Your task to perform on an android device: turn on the 12-hour format for clock Image 0: 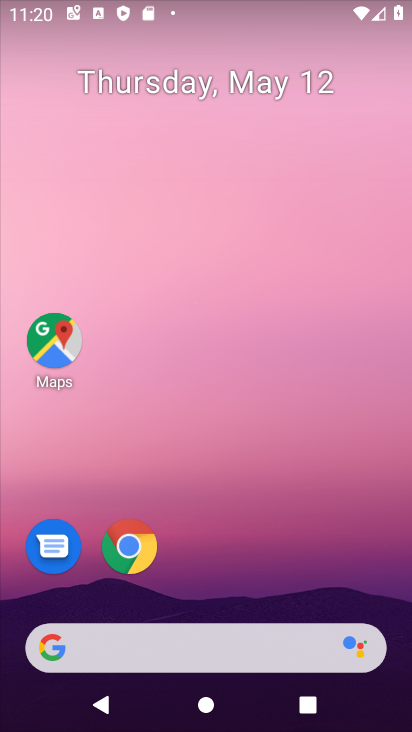
Step 0: drag from (288, 655) to (258, 166)
Your task to perform on an android device: turn on the 12-hour format for clock Image 1: 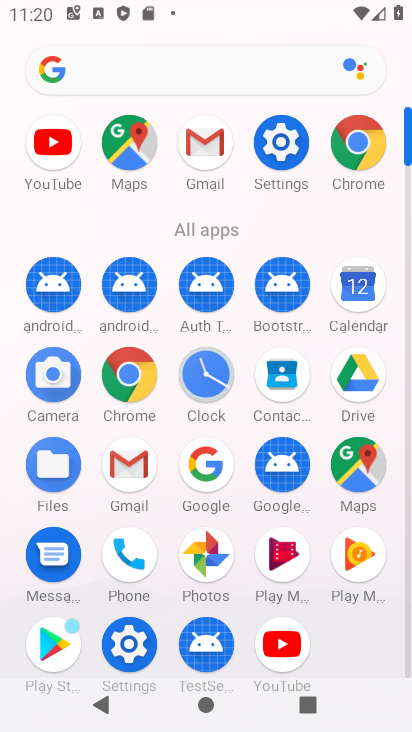
Step 1: click (199, 376)
Your task to perform on an android device: turn on the 12-hour format for clock Image 2: 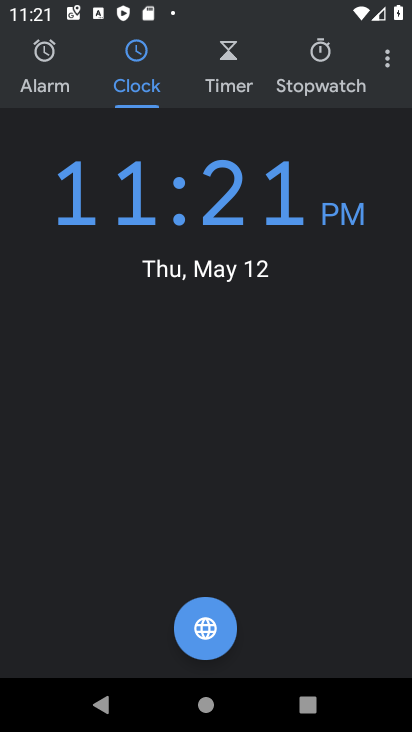
Step 2: click (377, 49)
Your task to perform on an android device: turn on the 12-hour format for clock Image 3: 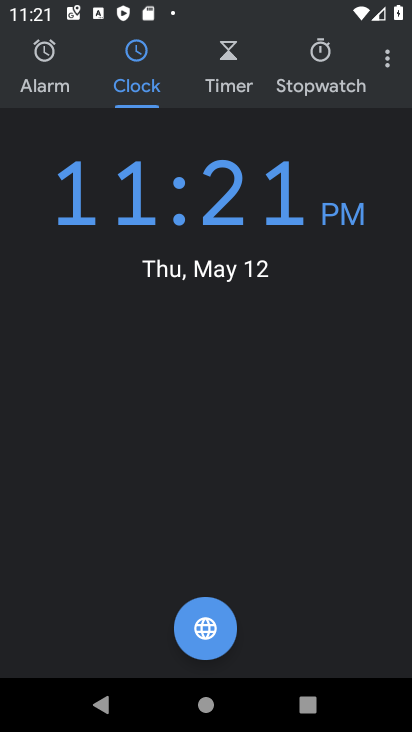
Step 3: click (377, 70)
Your task to perform on an android device: turn on the 12-hour format for clock Image 4: 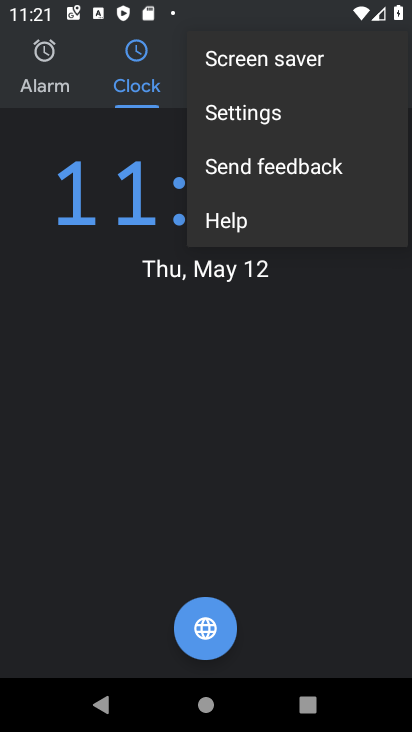
Step 4: click (245, 114)
Your task to perform on an android device: turn on the 12-hour format for clock Image 5: 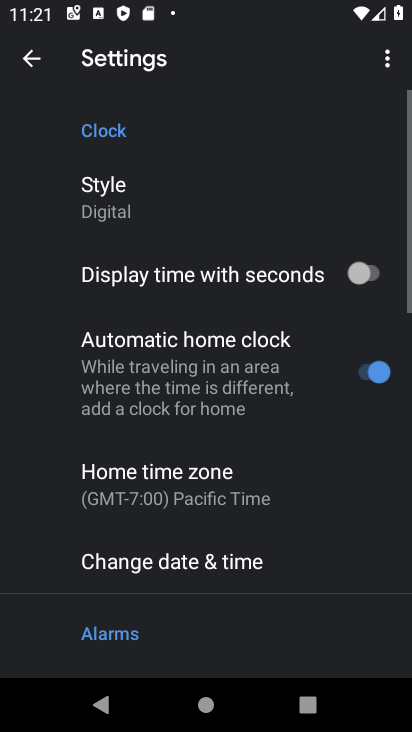
Step 5: click (246, 558)
Your task to perform on an android device: turn on the 12-hour format for clock Image 6: 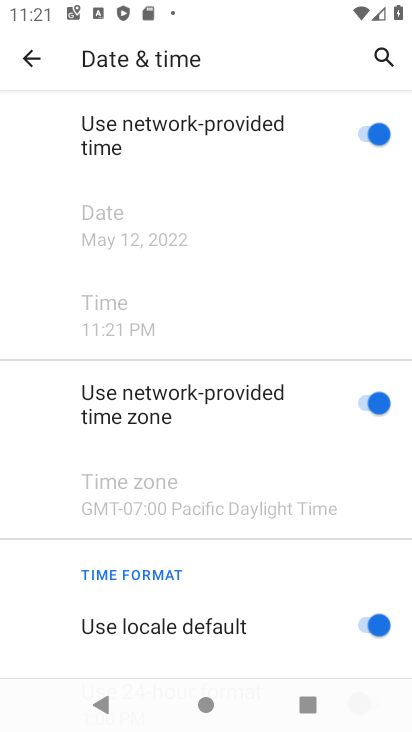
Step 6: drag from (327, 567) to (266, 370)
Your task to perform on an android device: turn on the 12-hour format for clock Image 7: 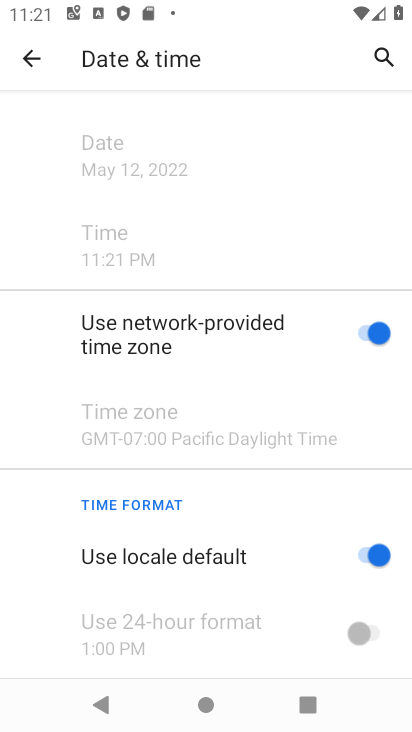
Step 7: click (374, 560)
Your task to perform on an android device: turn on the 12-hour format for clock Image 8: 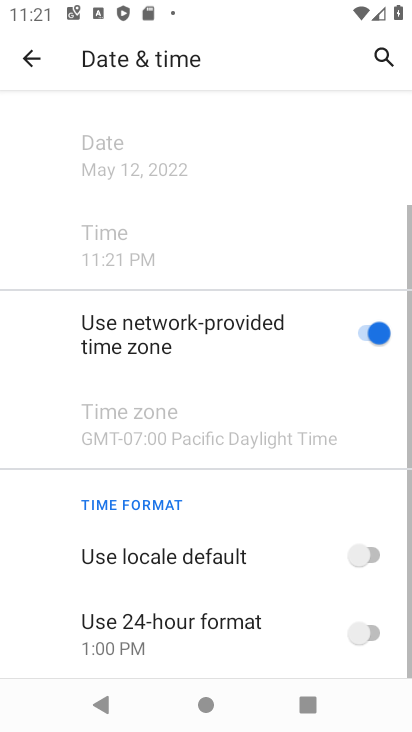
Step 8: click (376, 630)
Your task to perform on an android device: turn on the 12-hour format for clock Image 9: 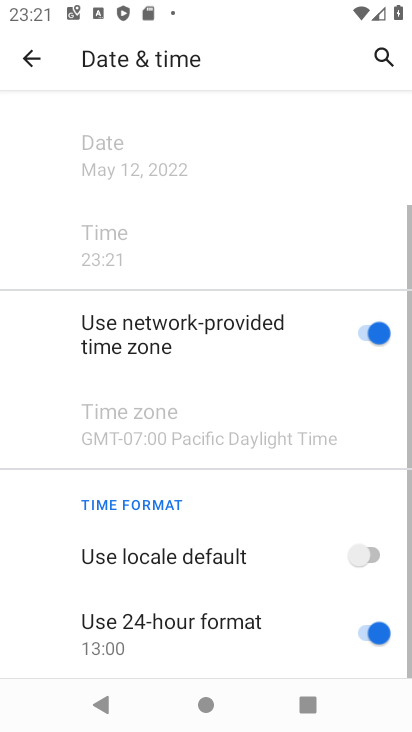
Step 9: click (376, 630)
Your task to perform on an android device: turn on the 12-hour format for clock Image 10: 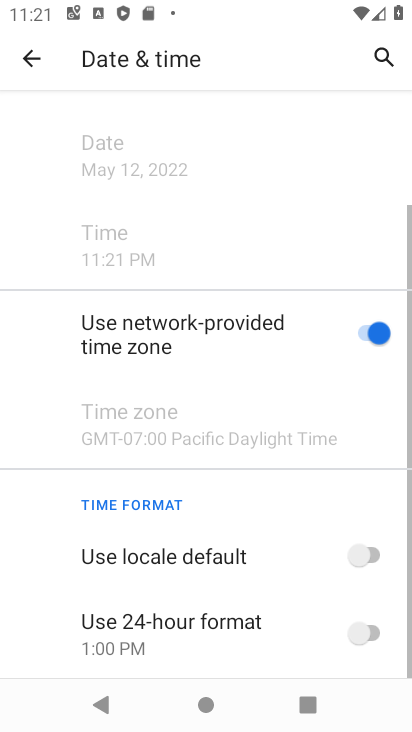
Step 10: task complete